Your task to perform on an android device: toggle priority inbox in the gmail app Image 0: 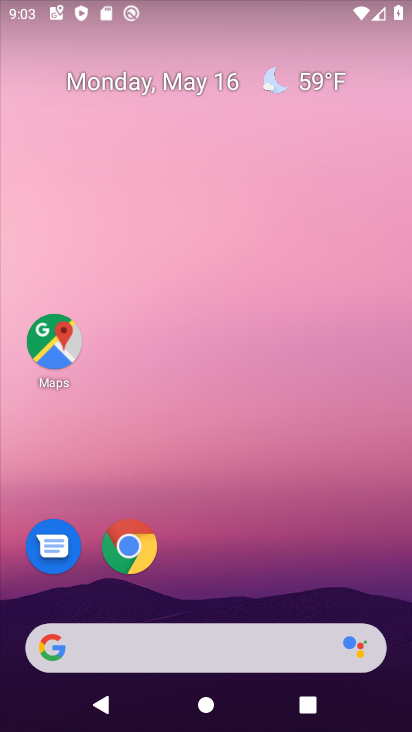
Step 0: drag from (299, 523) to (306, 35)
Your task to perform on an android device: toggle priority inbox in the gmail app Image 1: 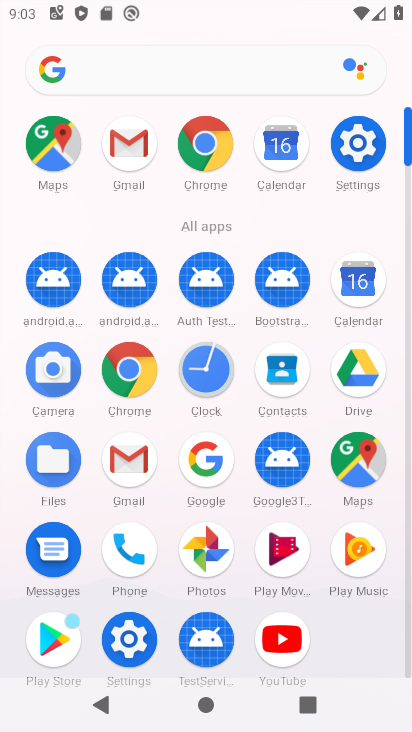
Step 1: click (132, 132)
Your task to perform on an android device: toggle priority inbox in the gmail app Image 2: 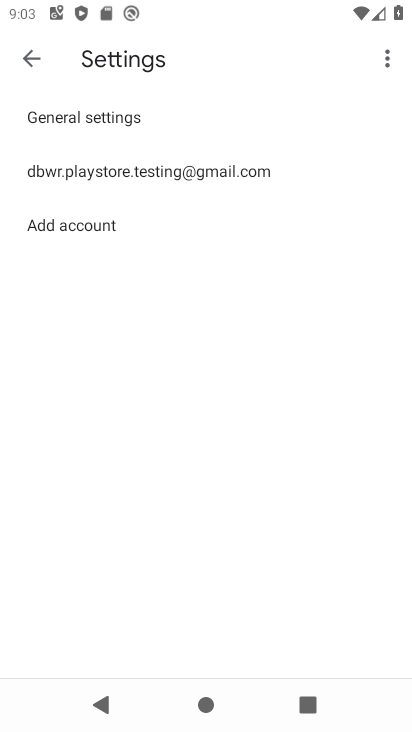
Step 2: click (51, 180)
Your task to perform on an android device: toggle priority inbox in the gmail app Image 3: 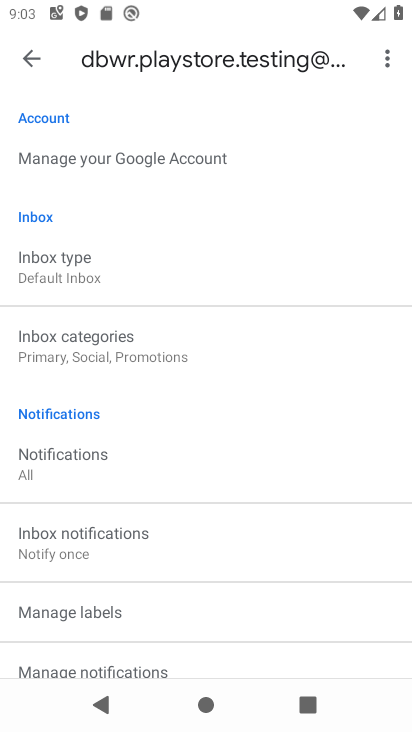
Step 3: drag from (92, 621) to (144, 206)
Your task to perform on an android device: toggle priority inbox in the gmail app Image 4: 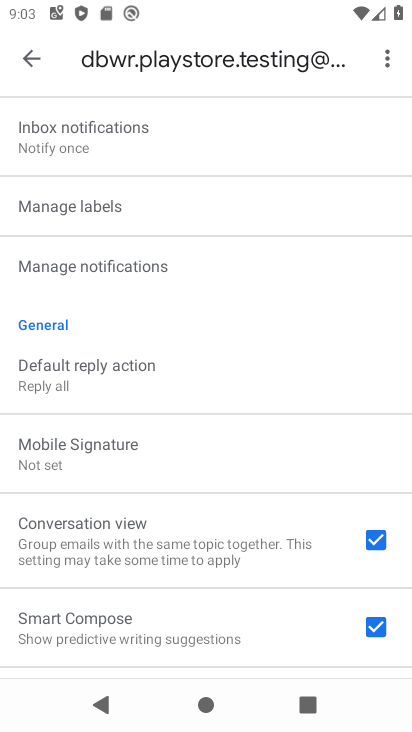
Step 4: drag from (123, 256) to (153, 596)
Your task to perform on an android device: toggle priority inbox in the gmail app Image 5: 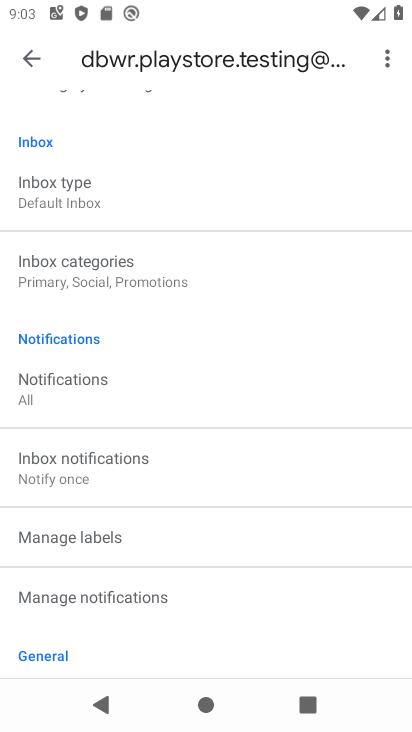
Step 5: drag from (100, 275) to (139, 529)
Your task to perform on an android device: toggle priority inbox in the gmail app Image 6: 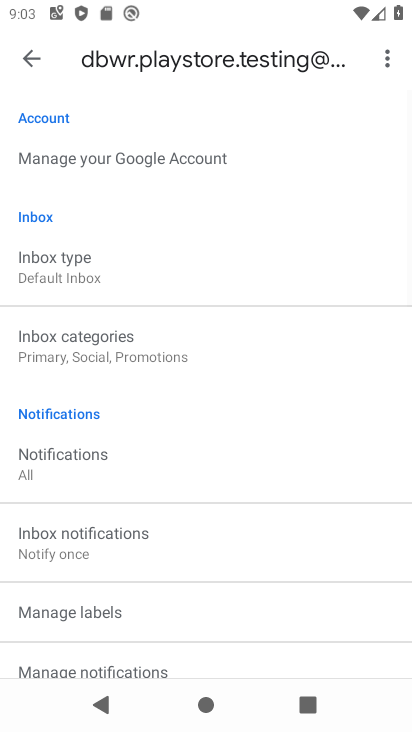
Step 6: click (63, 271)
Your task to perform on an android device: toggle priority inbox in the gmail app Image 7: 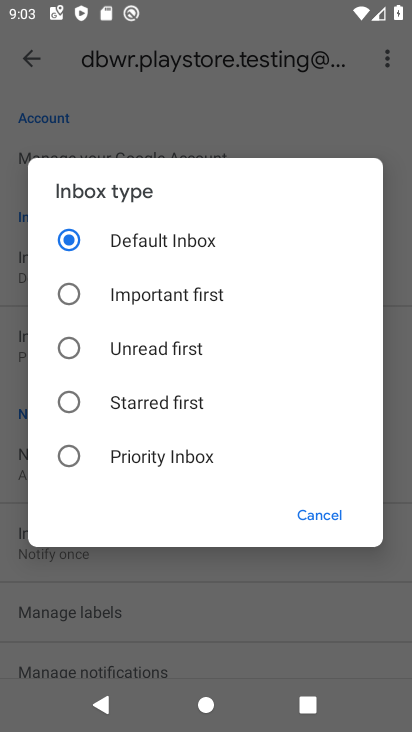
Step 7: click (78, 459)
Your task to perform on an android device: toggle priority inbox in the gmail app Image 8: 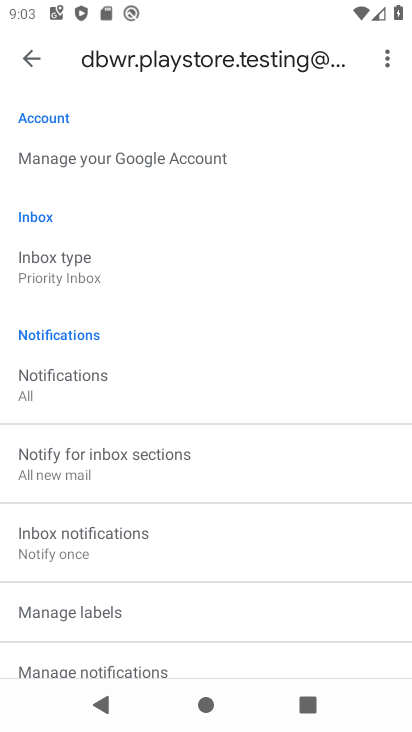
Step 8: task complete